Your task to perform on an android device: toggle priority inbox in the gmail app Image 0: 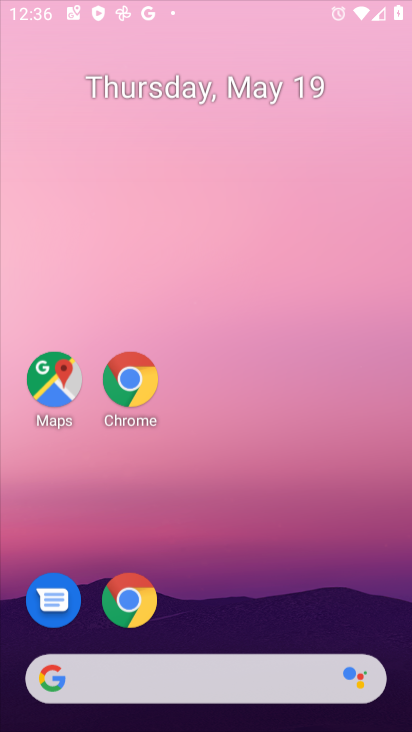
Step 0: click (241, 264)
Your task to perform on an android device: toggle priority inbox in the gmail app Image 1: 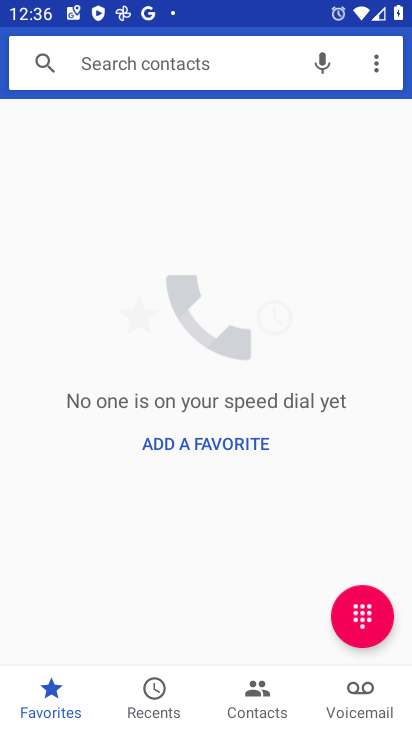
Step 1: press back button
Your task to perform on an android device: toggle priority inbox in the gmail app Image 2: 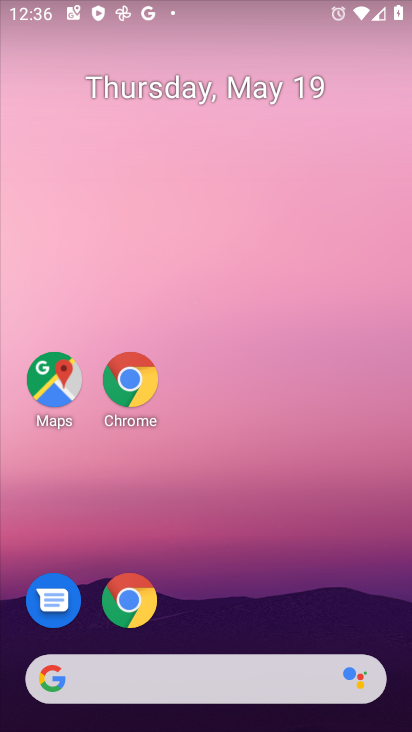
Step 2: press back button
Your task to perform on an android device: toggle priority inbox in the gmail app Image 3: 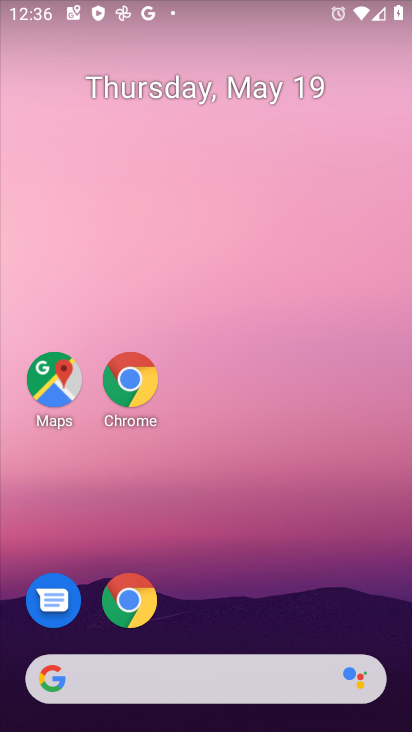
Step 3: press back button
Your task to perform on an android device: toggle priority inbox in the gmail app Image 4: 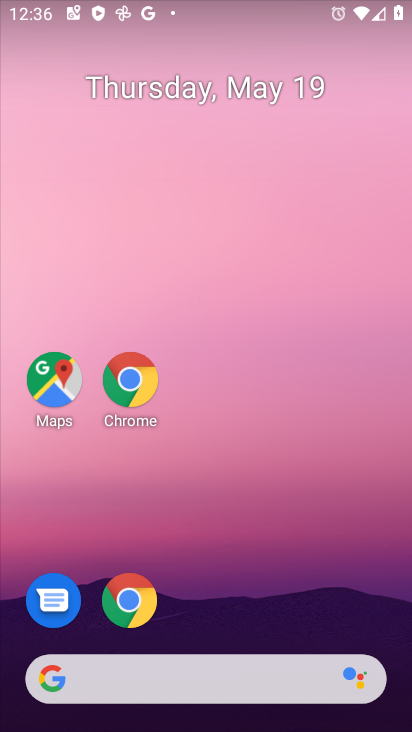
Step 4: press home button
Your task to perform on an android device: toggle priority inbox in the gmail app Image 5: 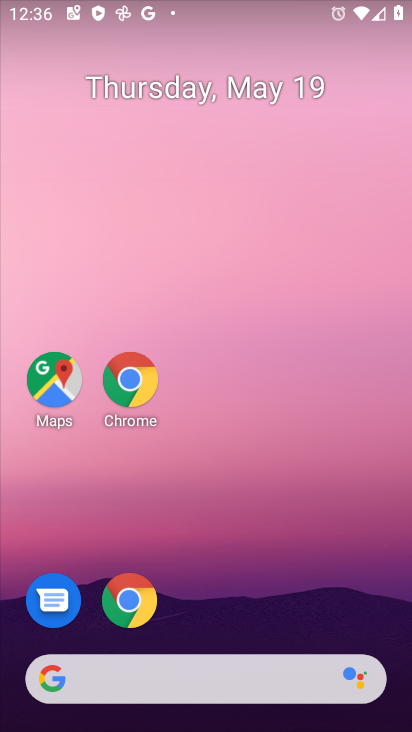
Step 5: press back button
Your task to perform on an android device: toggle priority inbox in the gmail app Image 6: 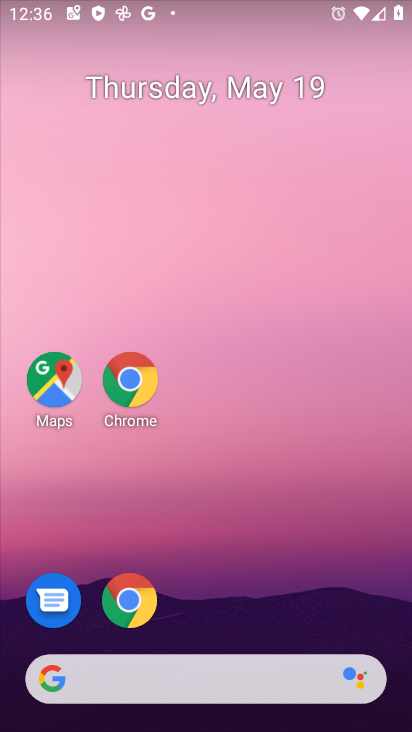
Step 6: drag from (298, 586) to (178, 144)
Your task to perform on an android device: toggle priority inbox in the gmail app Image 7: 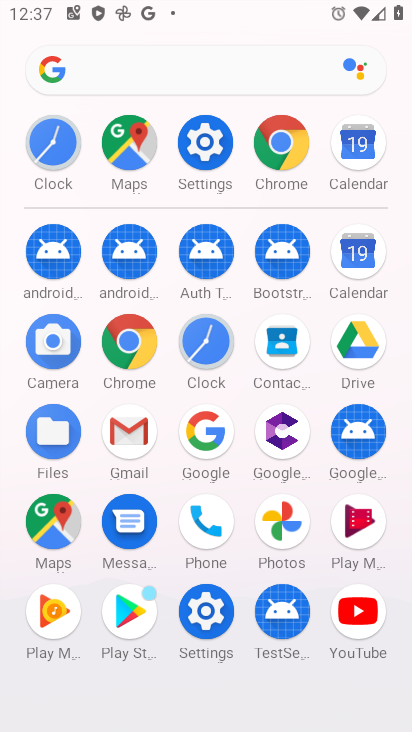
Step 7: click (116, 422)
Your task to perform on an android device: toggle priority inbox in the gmail app Image 8: 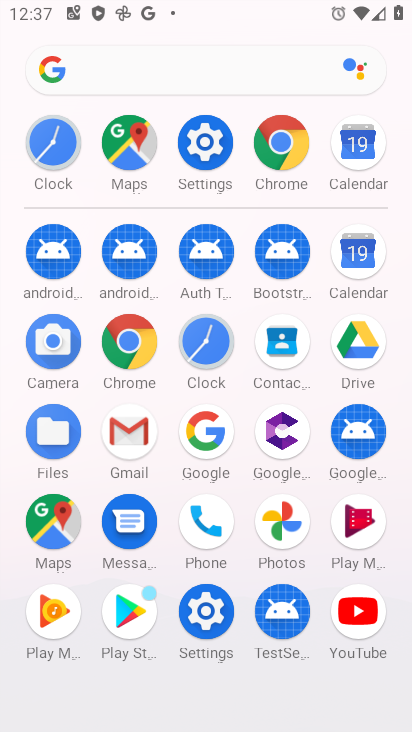
Step 8: click (117, 422)
Your task to perform on an android device: toggle priority inbox in the gmail app Image 9: 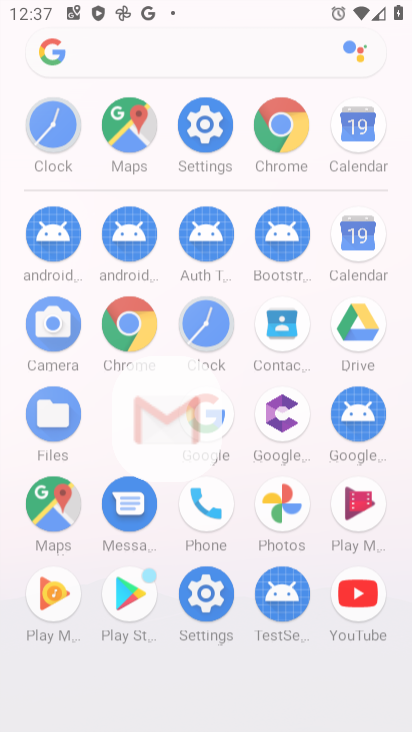
Step 9: click (124, 425)
Your task to perform on an android device: toggle priority inbox in the gmail app Image 10: 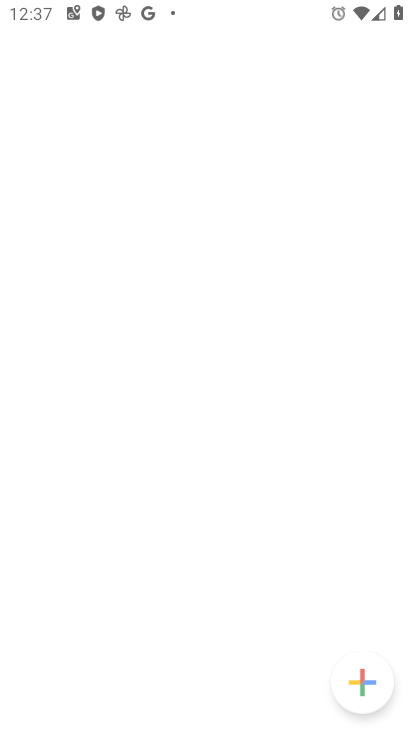
Step 10: click (124, 425)
Your task to perform on an android device: toggle priority inbox in the gmail app Image 11: 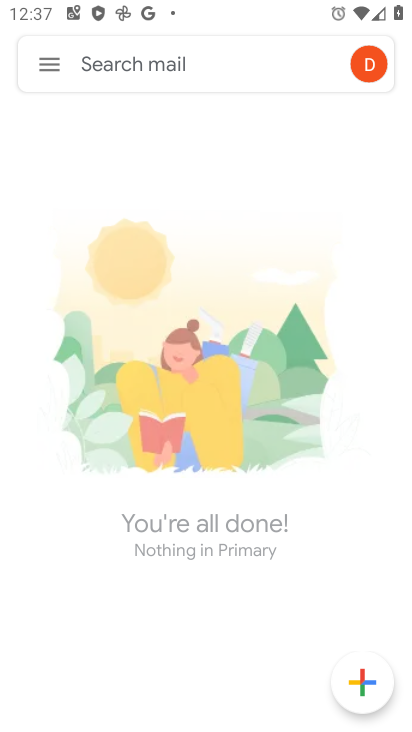
Step 11: click (130, 425)
Your task to perform on an android device: toggle priority inbox in the gmail app Image 12: 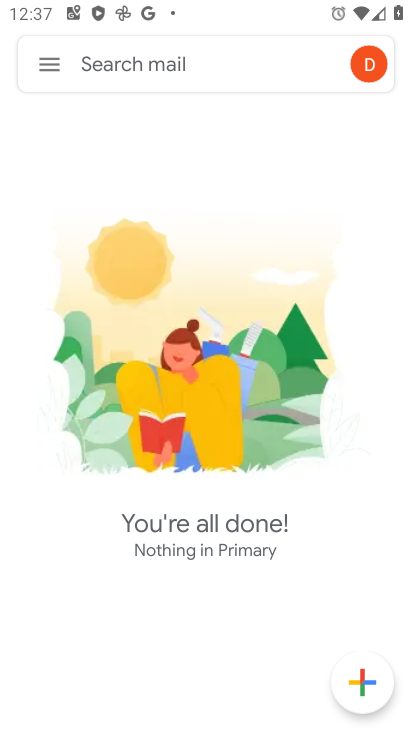
Step 12: click (139, 424)
Your task to perform on an android device: toggle priority inbox in the gmail app Image 13: 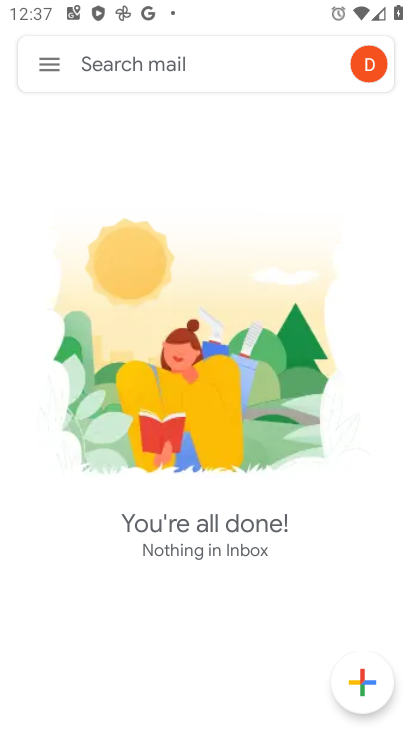
Step 13: click (56, 67)
Your task to perform on an android device: toggle priority inbox in the gmail app Image 14: 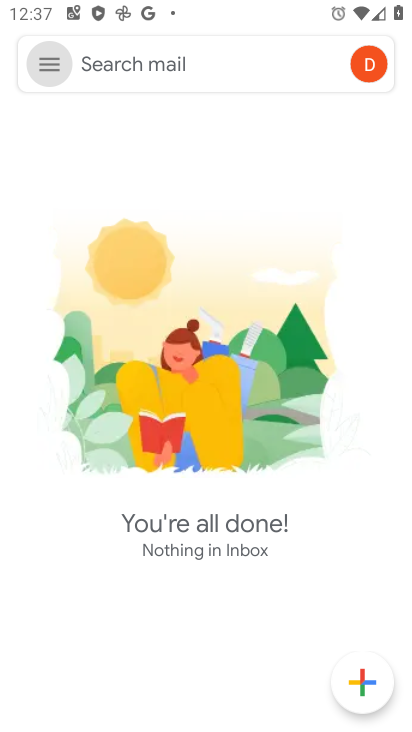
Step 14: click (56, 67)
Your task to perform on an android device: toggle priority inbox in the gmail app Image 15: 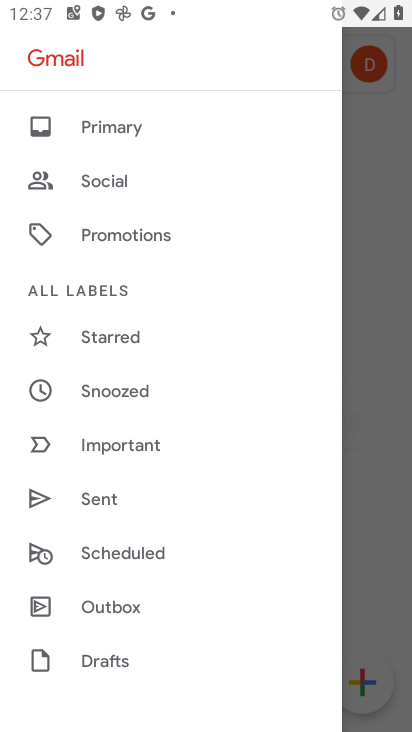
Step 15: drag from (160, 506) to (151, 180)
Your task to perform on an android device: toggle priority inbox in the gmail app Image 16: 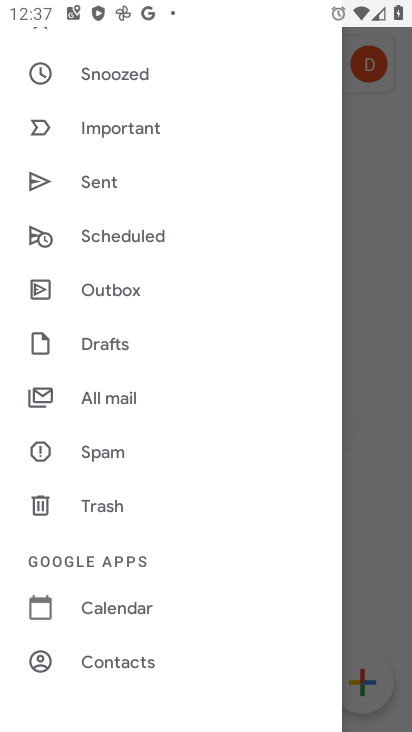
Step 16: drag from (160, 608) to (172, 185)
Your task to perform on an android device: toggle priority inbox in the gmail app Image 17: 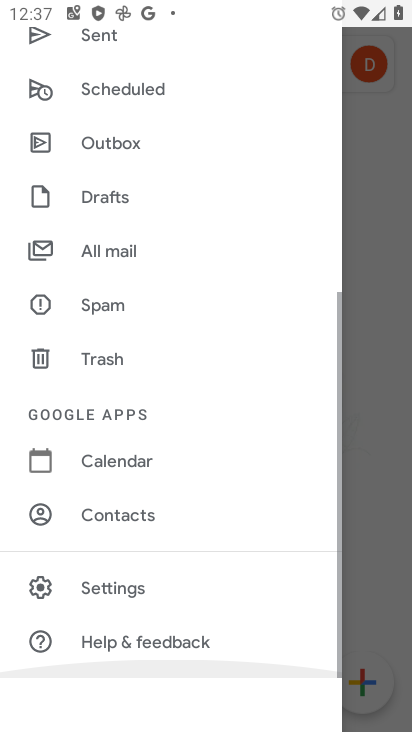
Step 17: drag from (231, 523) to (168, 198)
Your task to perform on an android device: toggle priority inbox in the gmail app Image 18: 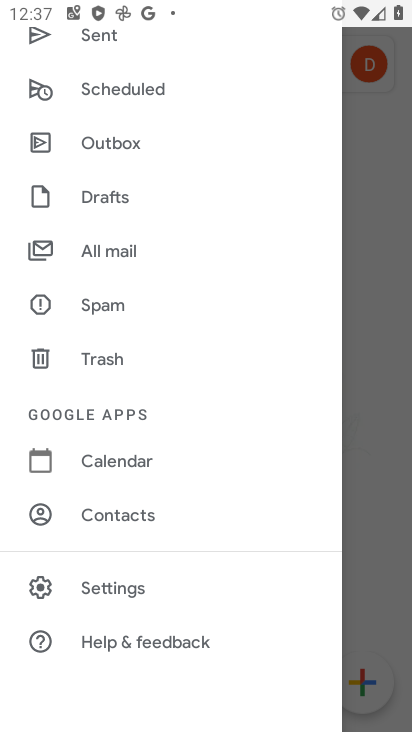
Step 18: click (105, 584)
Your task to perform on an android device: toggle priority inbox in the gmail app Image 19: 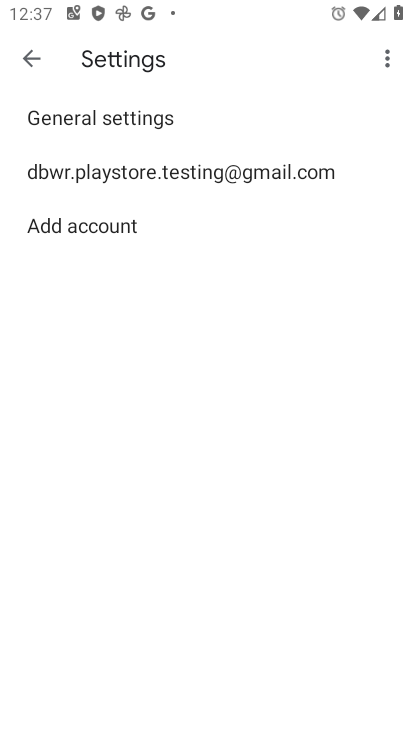
Step 19: click (112, 163)
Your task to perform on an android device: toggle priority inbox in the gmail app Image 20: 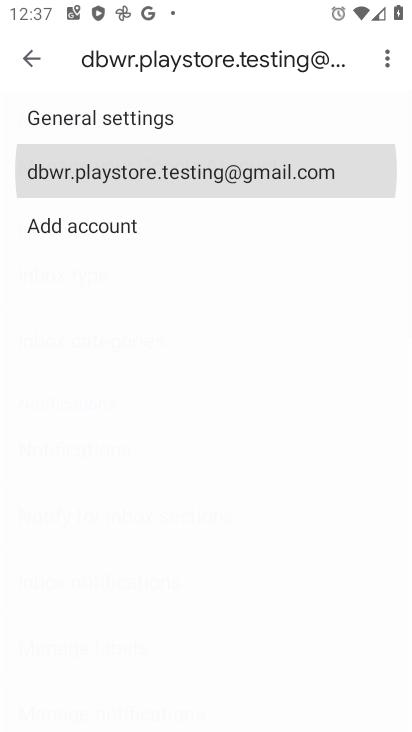
Step 20: click (116, 172)
Your task to perform on an android device: toggle priority inbox in the gmail app Image 21: 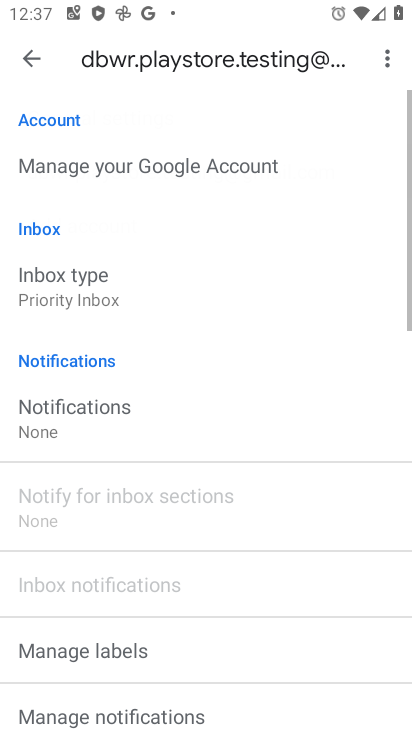
Step 21: click (117, 172)
Your task to perform on an android device: toggle priority inbox in the gmail app Image 22: 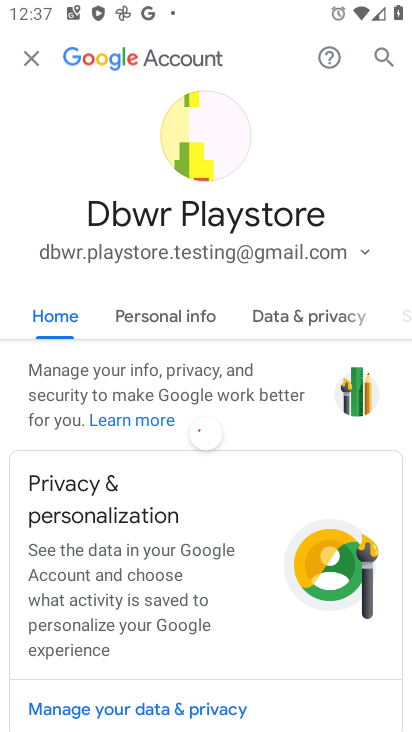
Step 22: click (27, 50)
Your task to perform on an android device: toggle priority inbox in the gmail app Image 23: 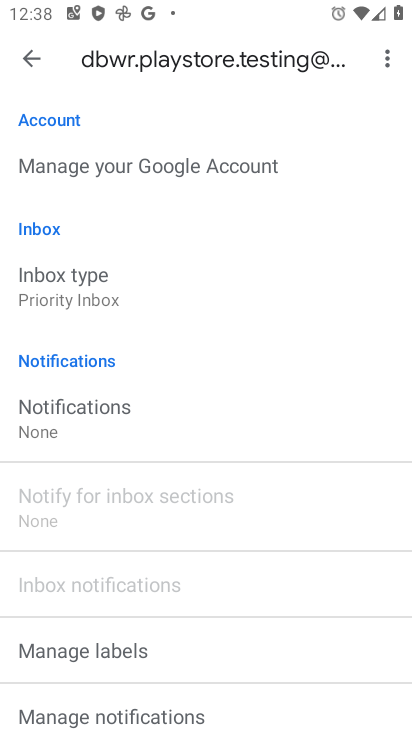
Step 23: click (56, 288)
Your task to perform on an android device: toggle priority inbox in the gmail app Image 24: 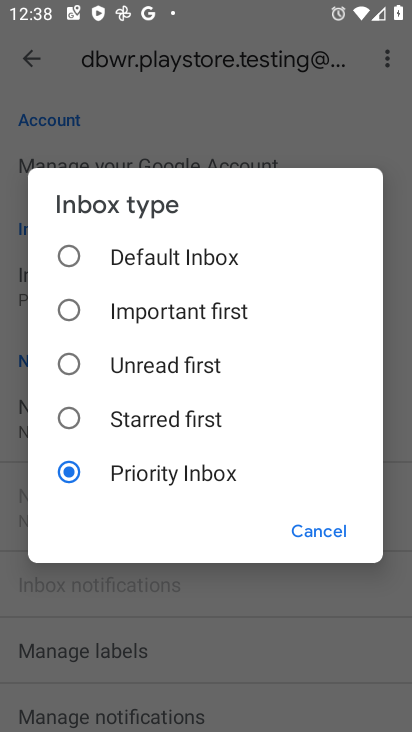
Step 24: click (315, 537)
Your task to perform on an android device: toggle priority inbox in the gmail app Image 25: 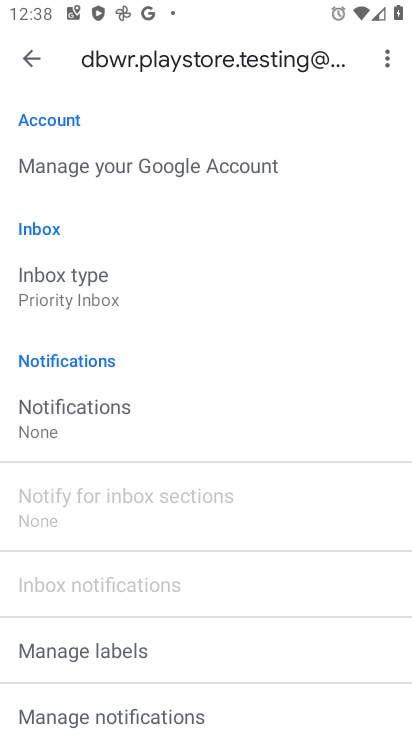
Step 25: click (19, 57)
Your task to perform on an android device: toggle priority inbox in the gmail app Image 26: 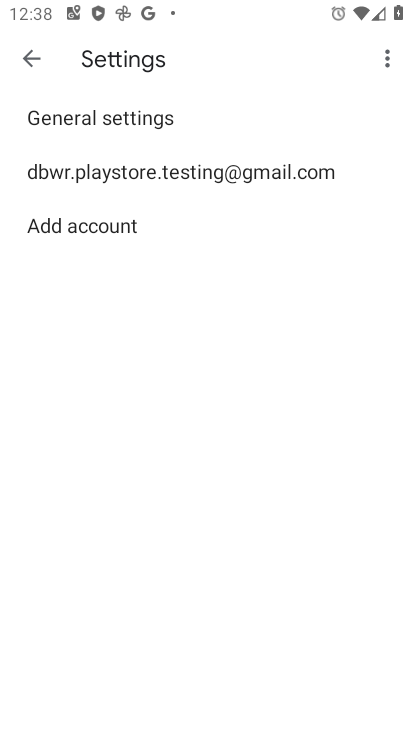
Step 26: click (127, 184)
Your task to perform on an android device: toggle priority inbox in the gmail app Image 27: 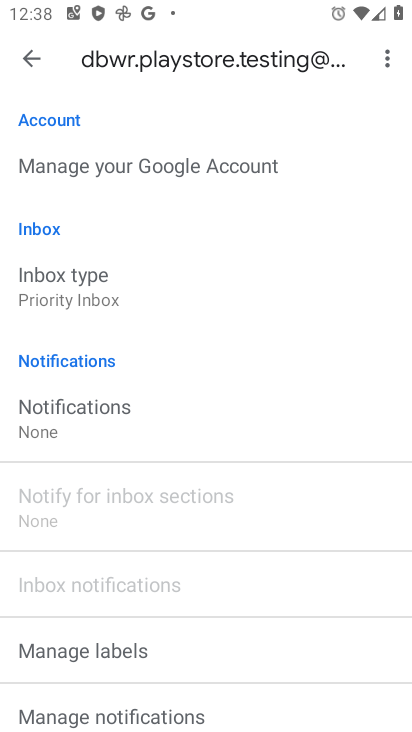
Step 27: click (64, 277)
Your task to perform on an android device: toggle priority inbox in the gmail app Image 28: 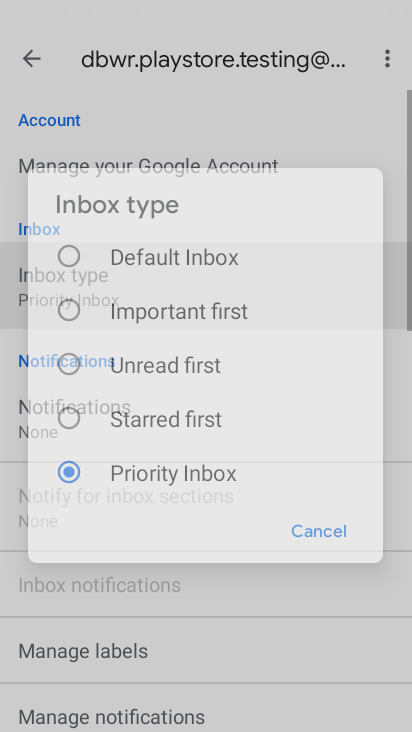
Step 28: click (60, 277)
Your task to perform on an android device: toggle priority inbox in the gmail app Image 29: 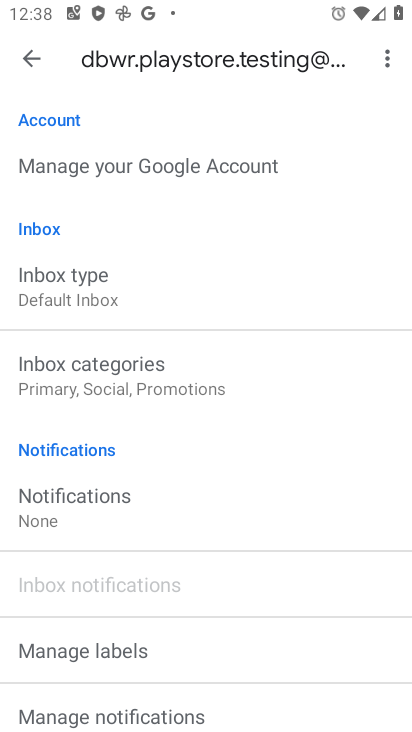
Step 29: click (58, 303)
Your task to perform on an android device: toggle priority inbox in the gmail app Image 30: 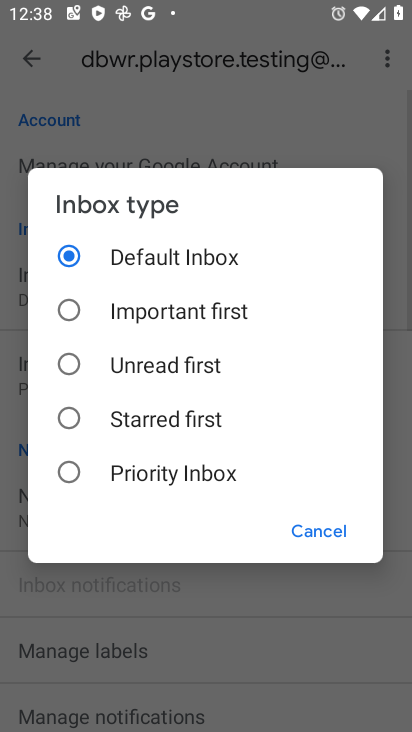
Step 30: click (68, 471)
Your task to perform on an android device: toggle priority inbox in the gmail app Image 31: 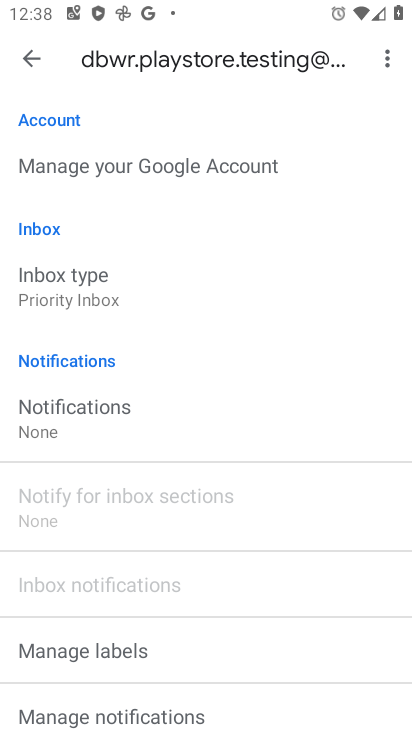
Step 31: task complete